Your task to perform on an android device: Open eBay Image 0: 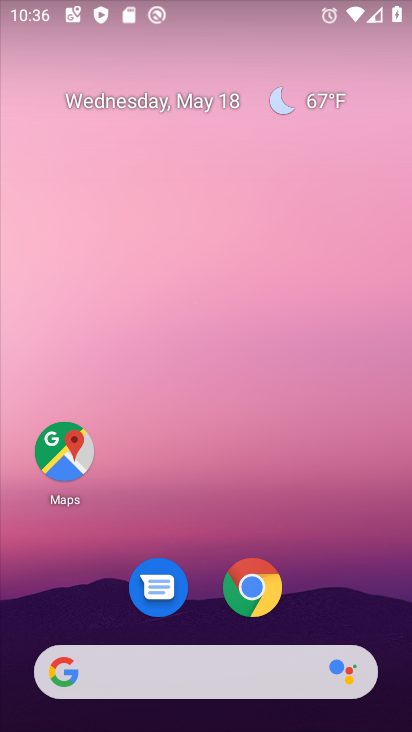
Step 0: click (261, 598)
Your task to perform on an android device: Open eBay Image 1: 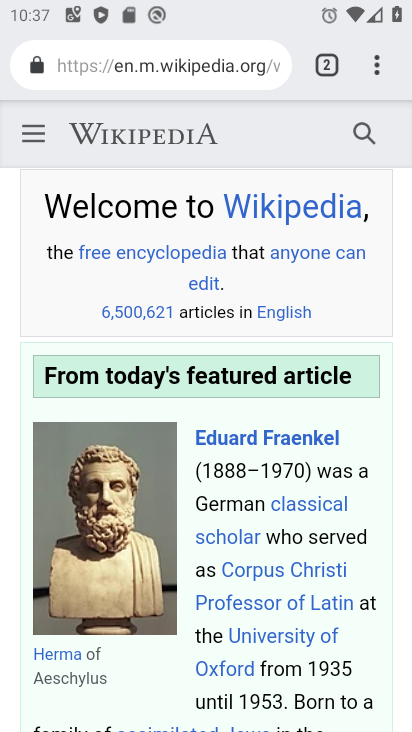
Step 1: click (326, 59)
Your task to perform on an android device: Open eBay Image 2: 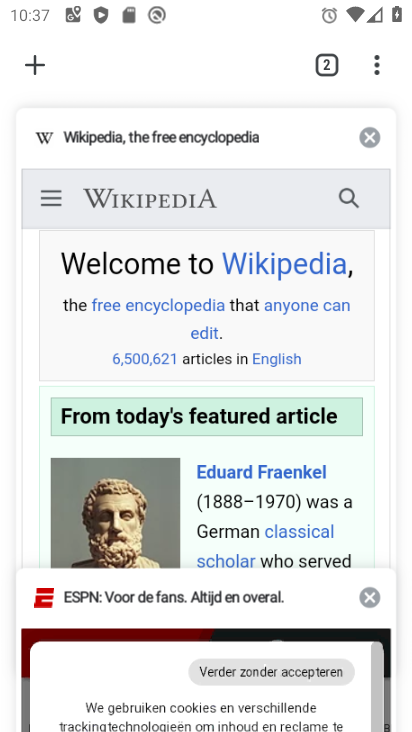
Step 2: click (33, 66)
Your task to perform on an android device: Open eBay Image 3: 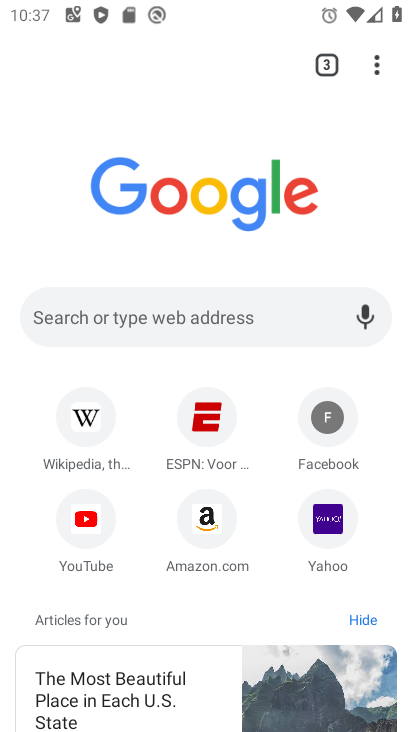
Step 3: click (209, 317)
Your task to perform on an android device: Open eBay Image 4: 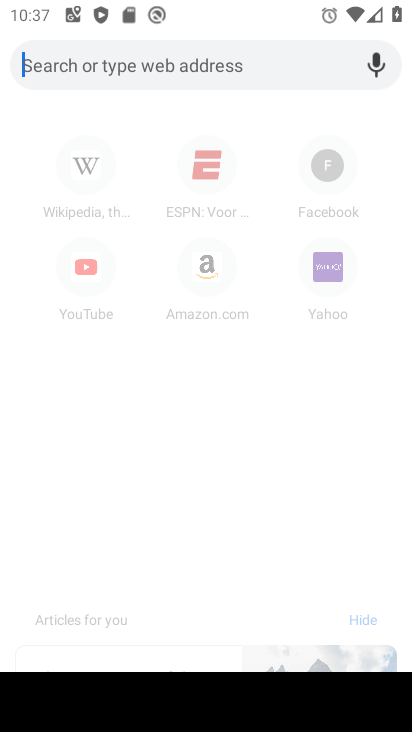
Step 4: type "ebay"
Your task to perform on an android device: Open eBay Image 5: 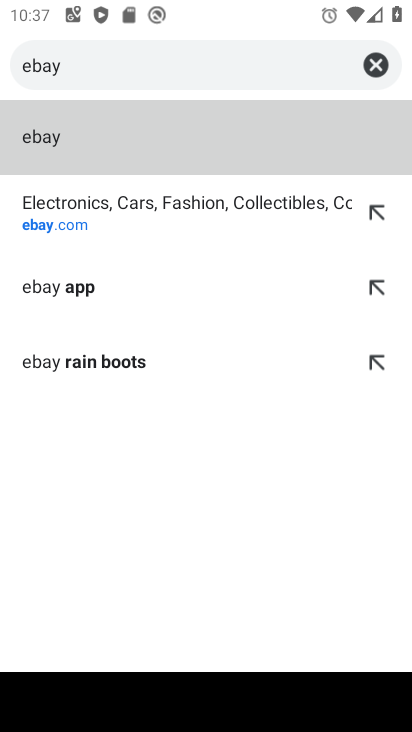
Step 5: click (112, 206)
Your task to perform on an android device: Open eBay Image 6: 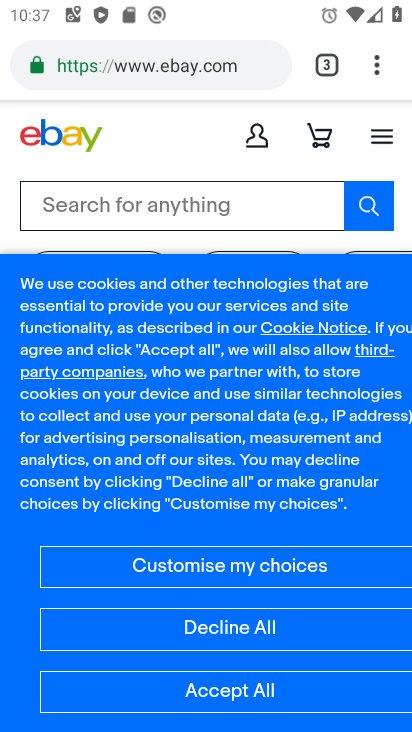
Step 6: task complete